Your task to perform on an android device: Empty the shopping cart on amazon. Search for "acer nitro" on amazon, select the first entry, and add it to the cart. Image 0: 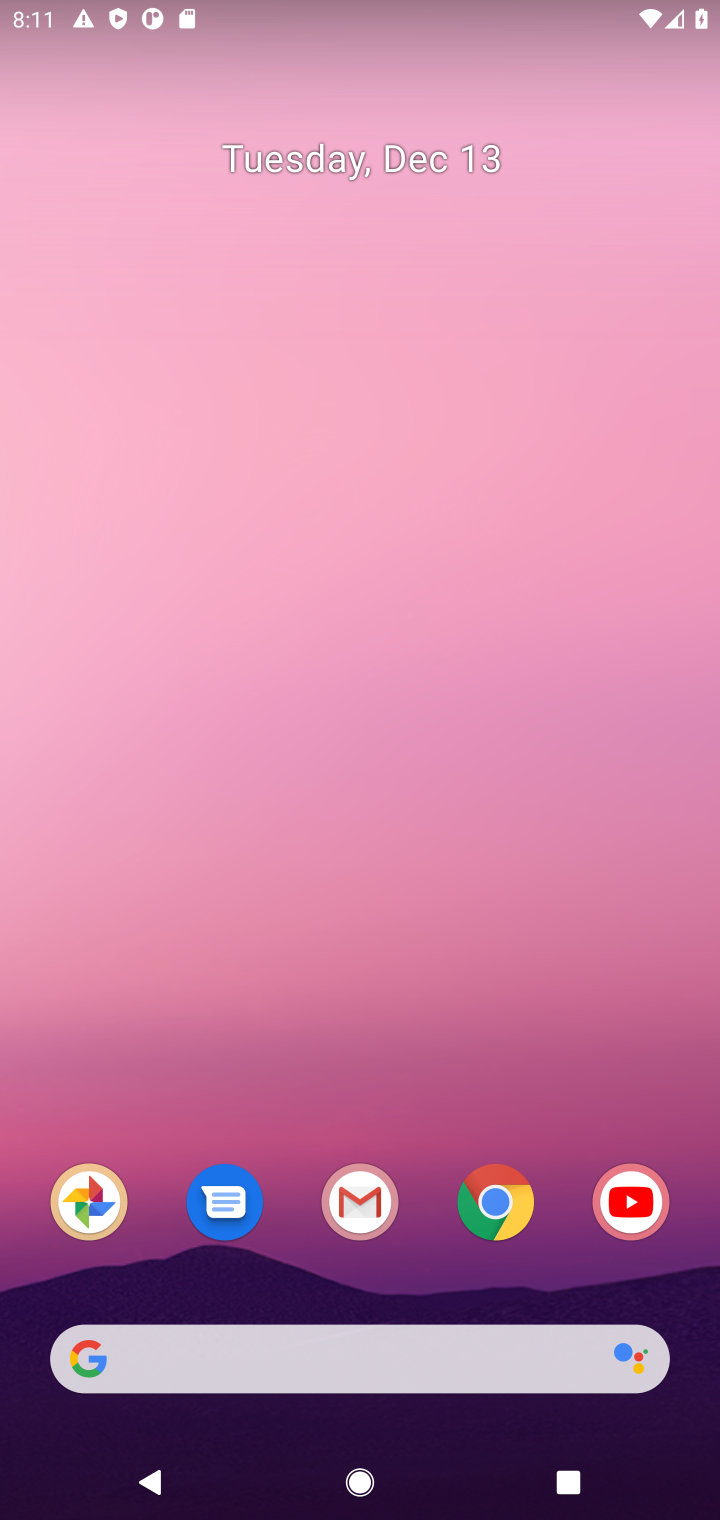
Step 0: click (517, 1214)
Your task to perform on an android device: Empty the shopping cart on amazon. Search for "acer nitro" on amazon, select the first entry, and add it to the cart. Image 1: 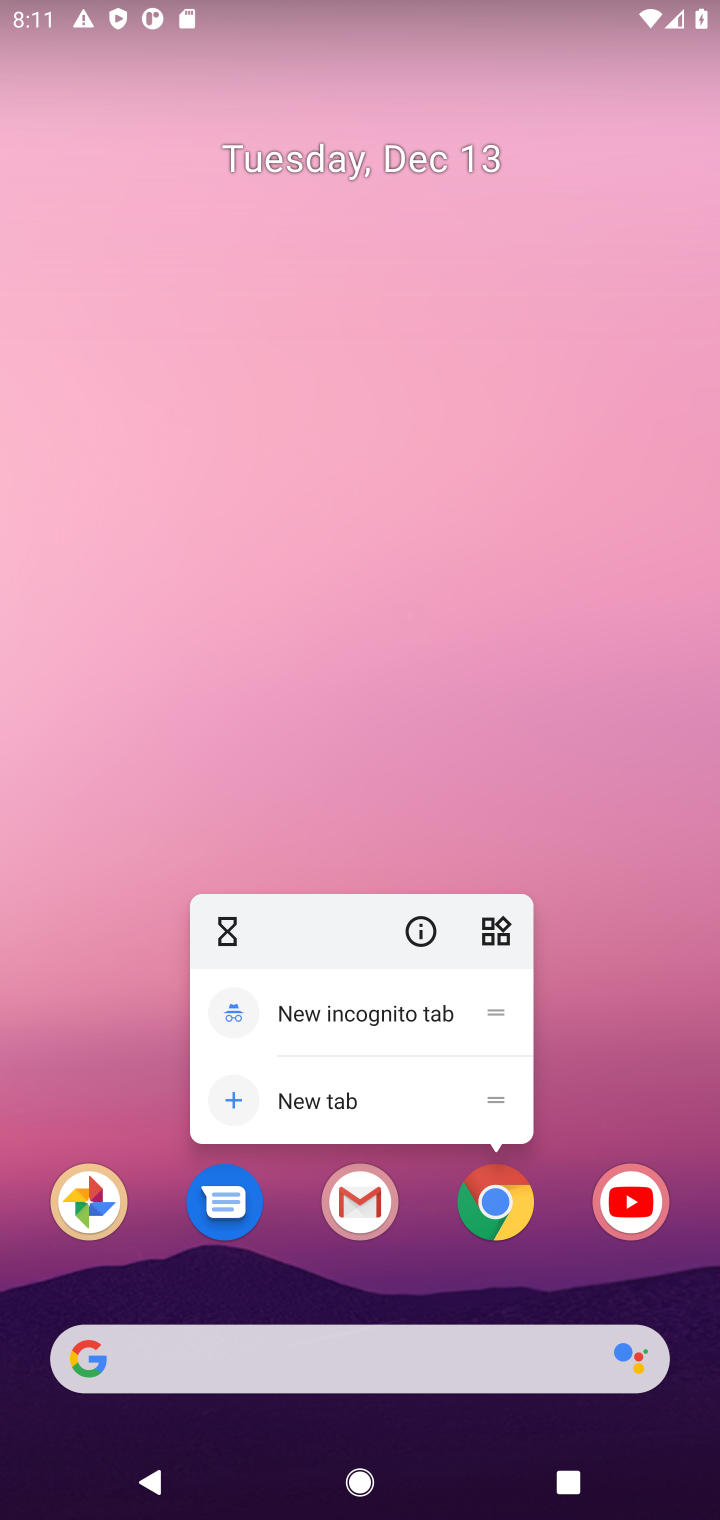
Step 1: click (517, 1214)
Your task to perform on an android device: Empty the shopping cart on amazon. Search for "acer nitro" on amazon, select the first entry, and add it to the cart. Image 2: 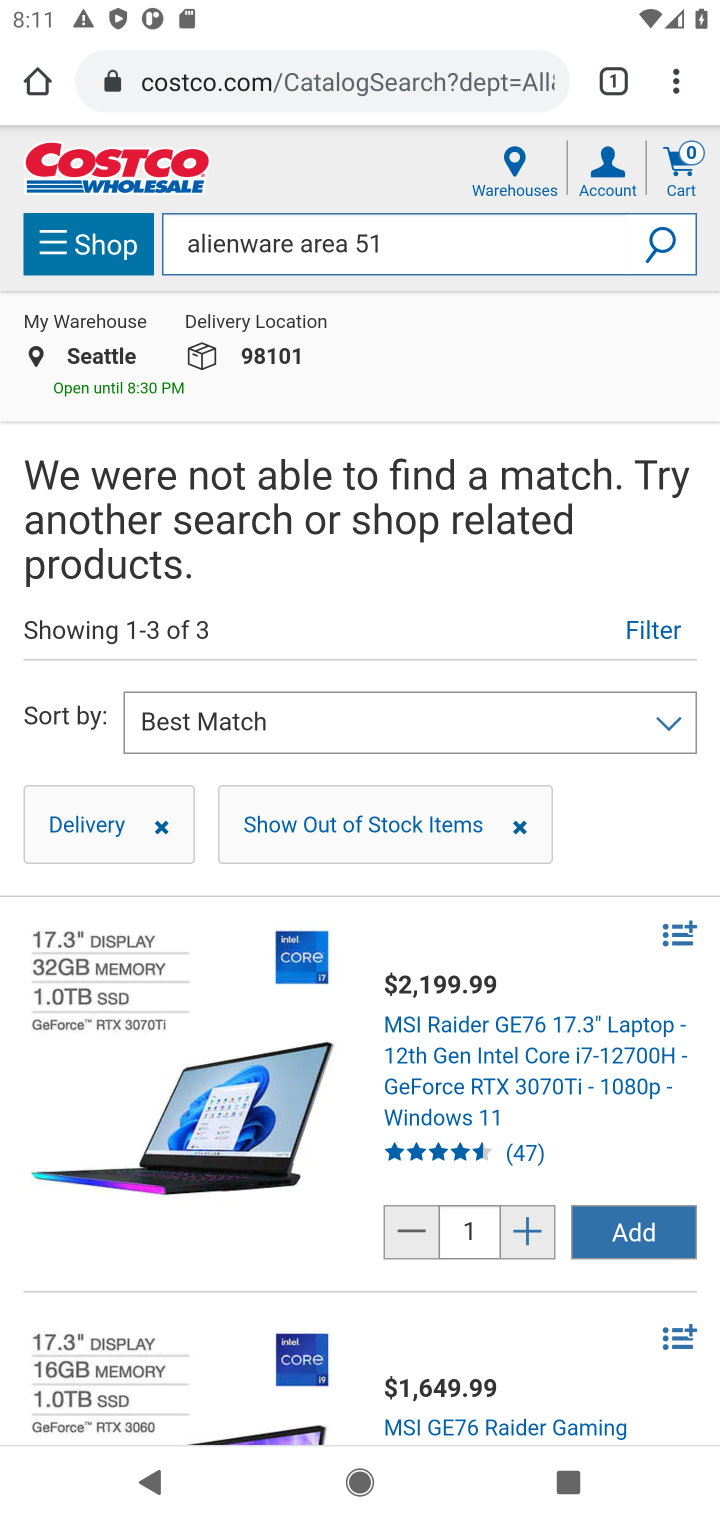
Step 2: click (326, 72)
Your task to perform on an android device: Empty the shopping cart on amazon. Search for "acer nitro" on amazon, select the first entry, and add it to the cart. Image 3: 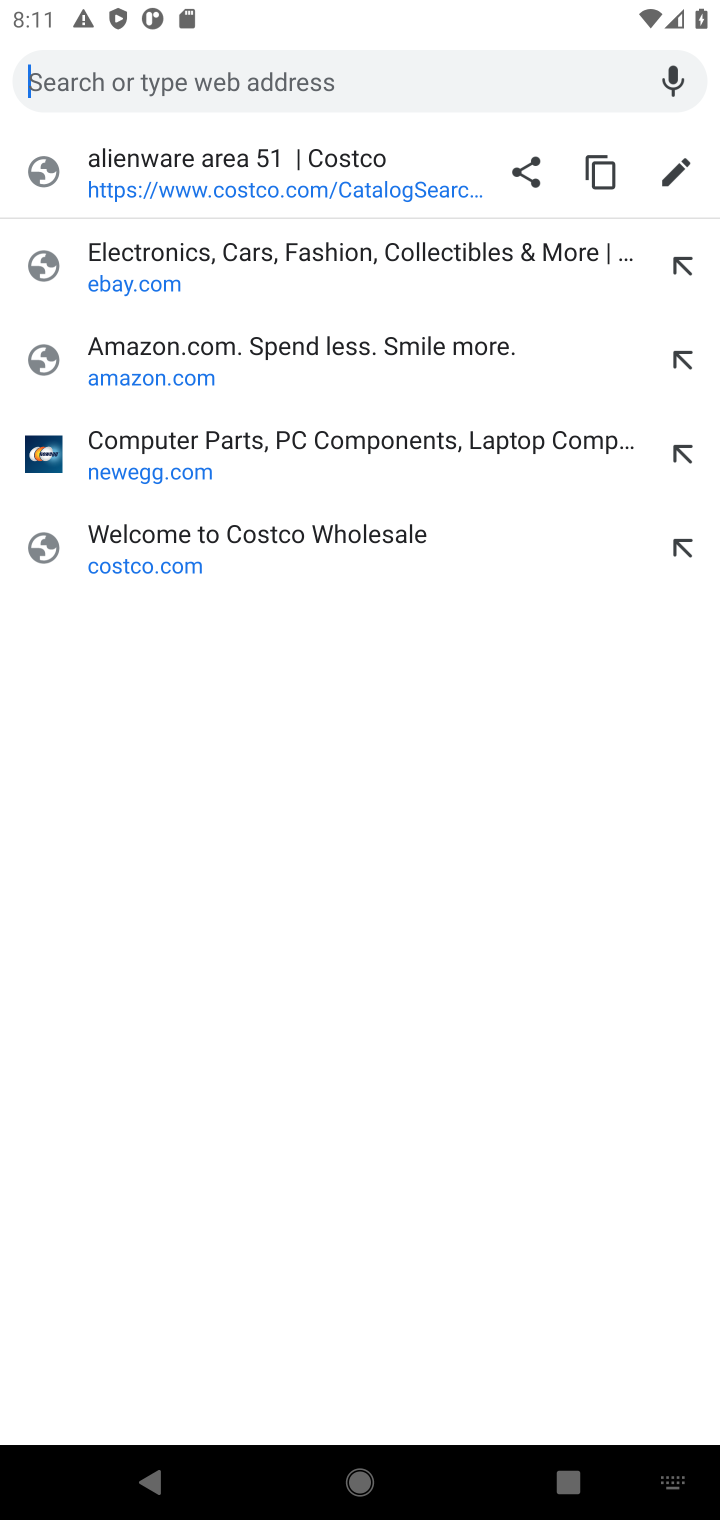
Step 3: click (131, 351)
Your task to perform on an android device: Empty the shopping cart on amazon. Search for "acer nitro" on amazon, select the first entry, and add it to the cart. Image 4: 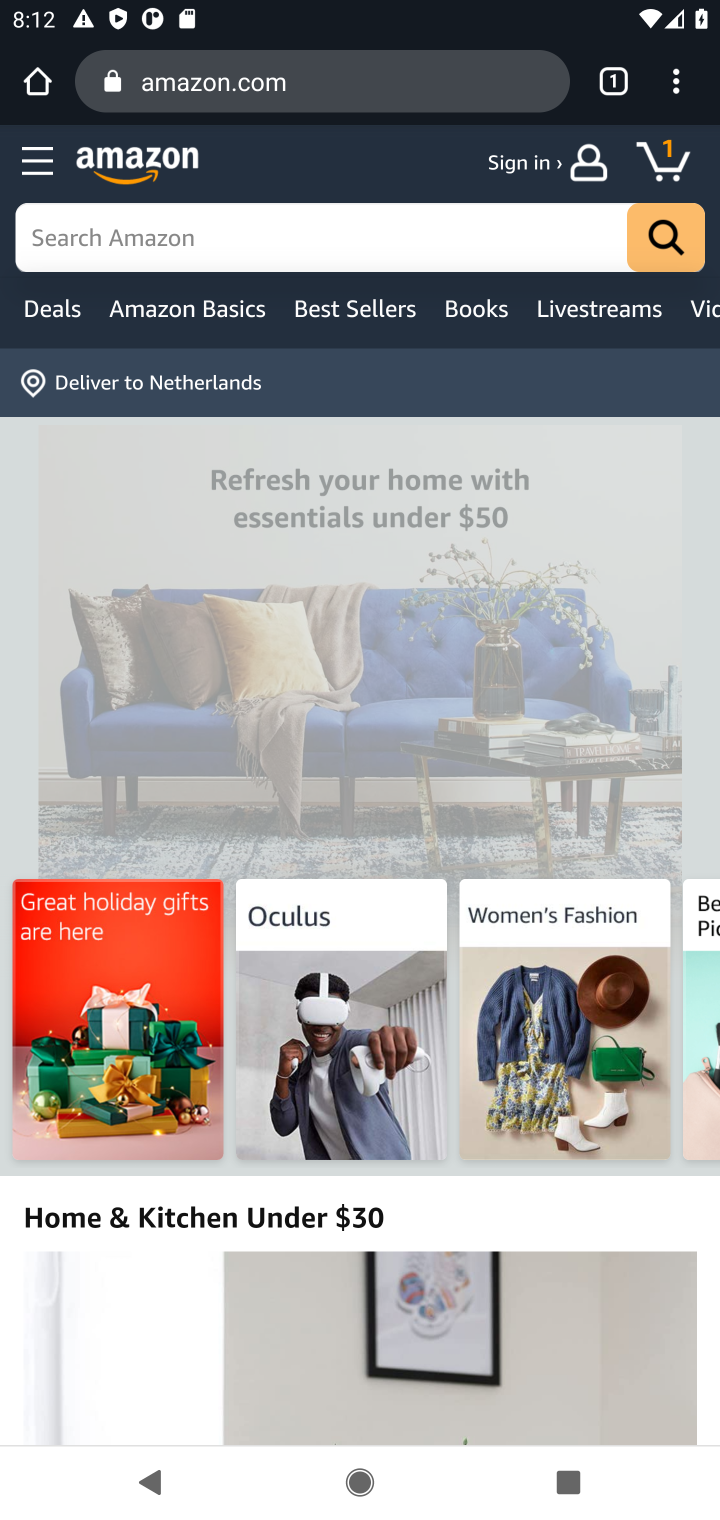
Step 4: click (669, 165)
Your task to perform on an android device: Empty the shopping cart on amazon. Search for "acer nitro" on amazon, select the first entry, and add it to the cart. Image 5: 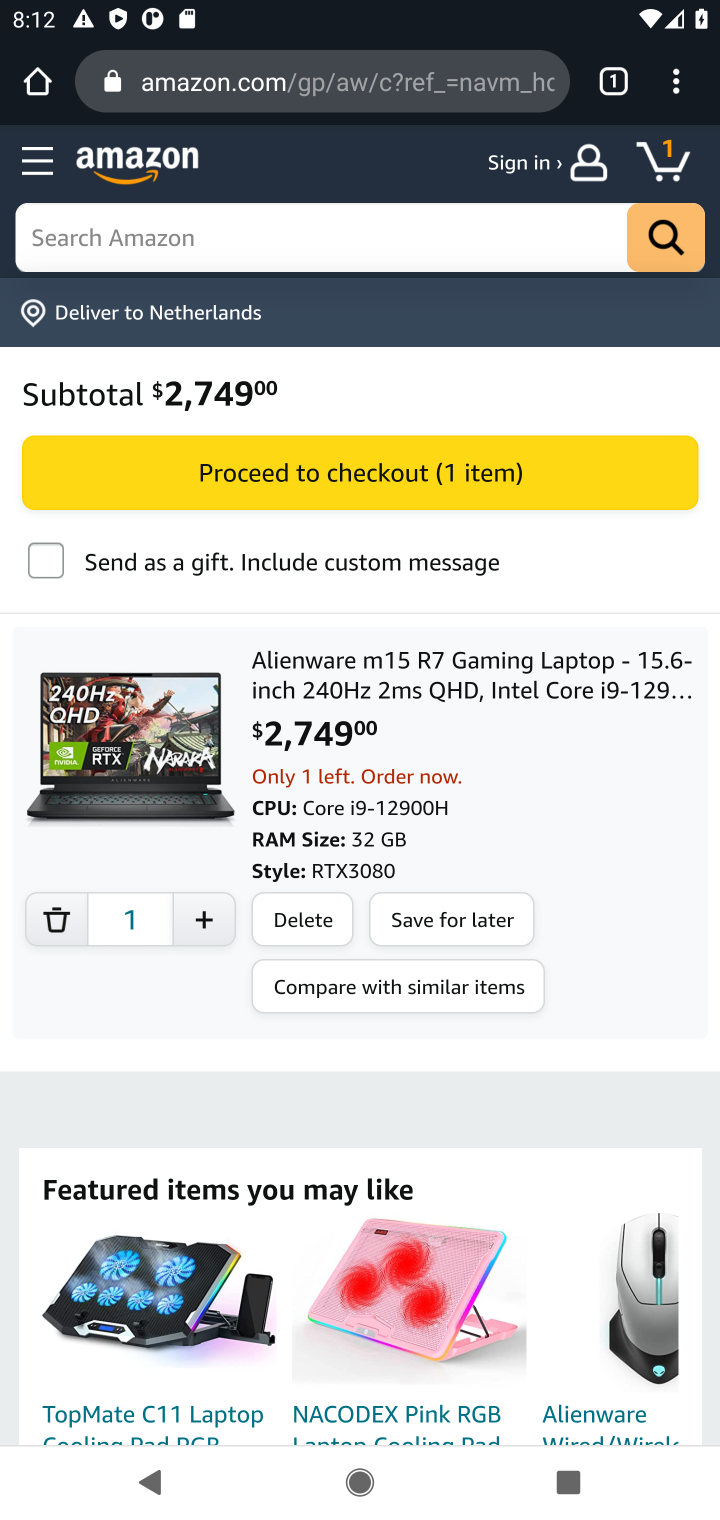
Step 5: click (310, 923)
Your task to perform on an android device: Empty the shopping cart on amazon. Search for "acer nitro" on amazon, select the first entry, and add it to the cart. Image 6: 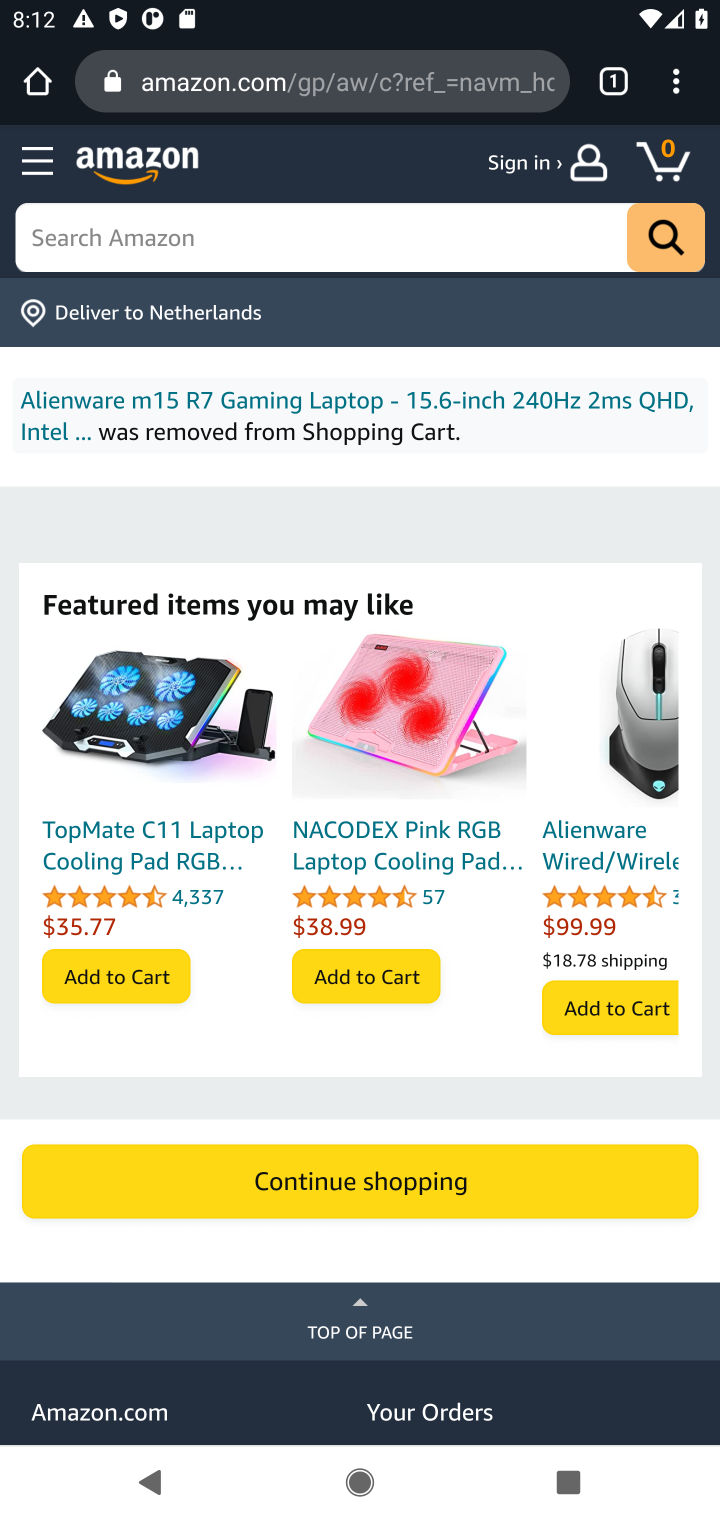
Step 6: click (457, 254)
Your task to perform on an android device: Empty the shopping cart on amazon. Search for "acer nitro" on amazon, select the first entry, and add it to the cart. Image 7: 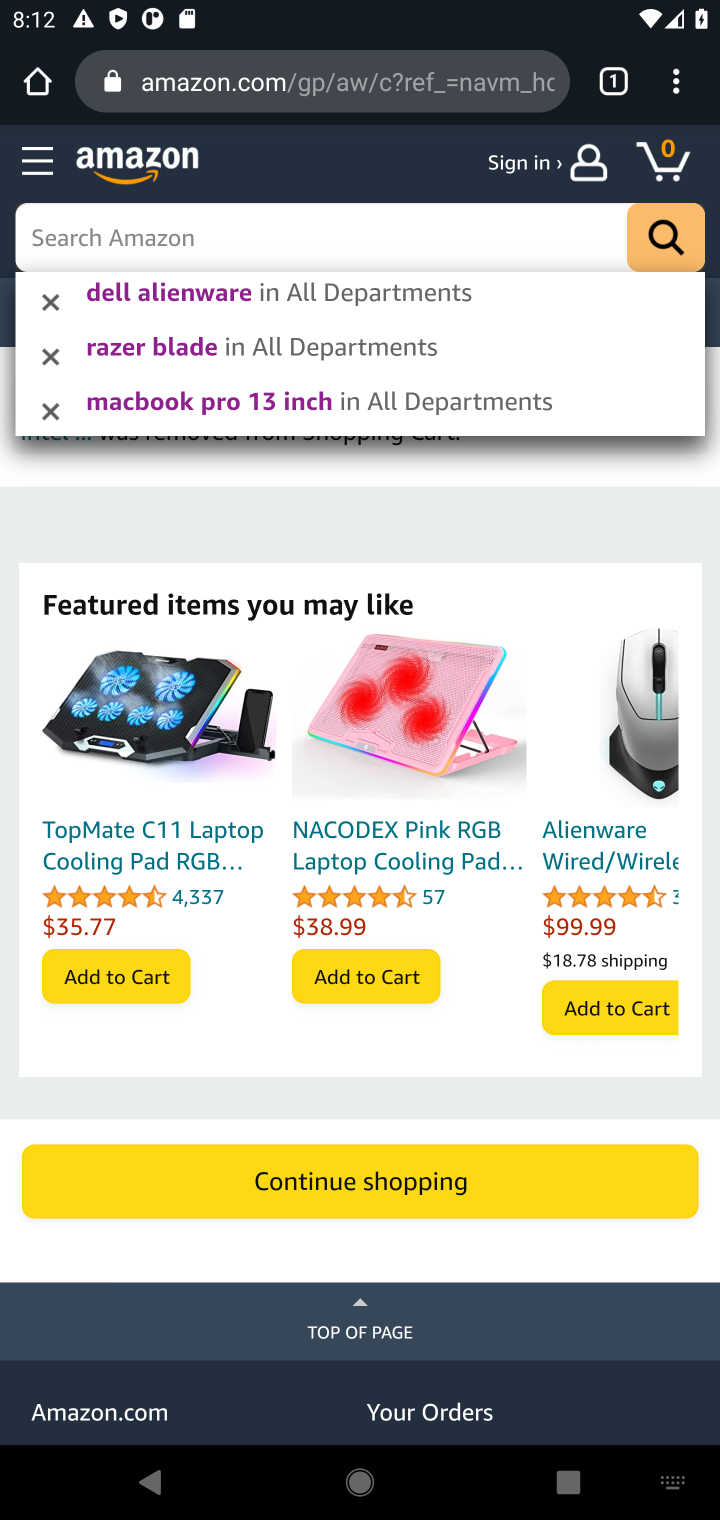
Step 7: type "acer nitro"
Your task to perform on an android device: Empty the shopping cart on amazon. Search for "acer nitro" on amazon, select the first entry, and add it to the cart. Image 8: 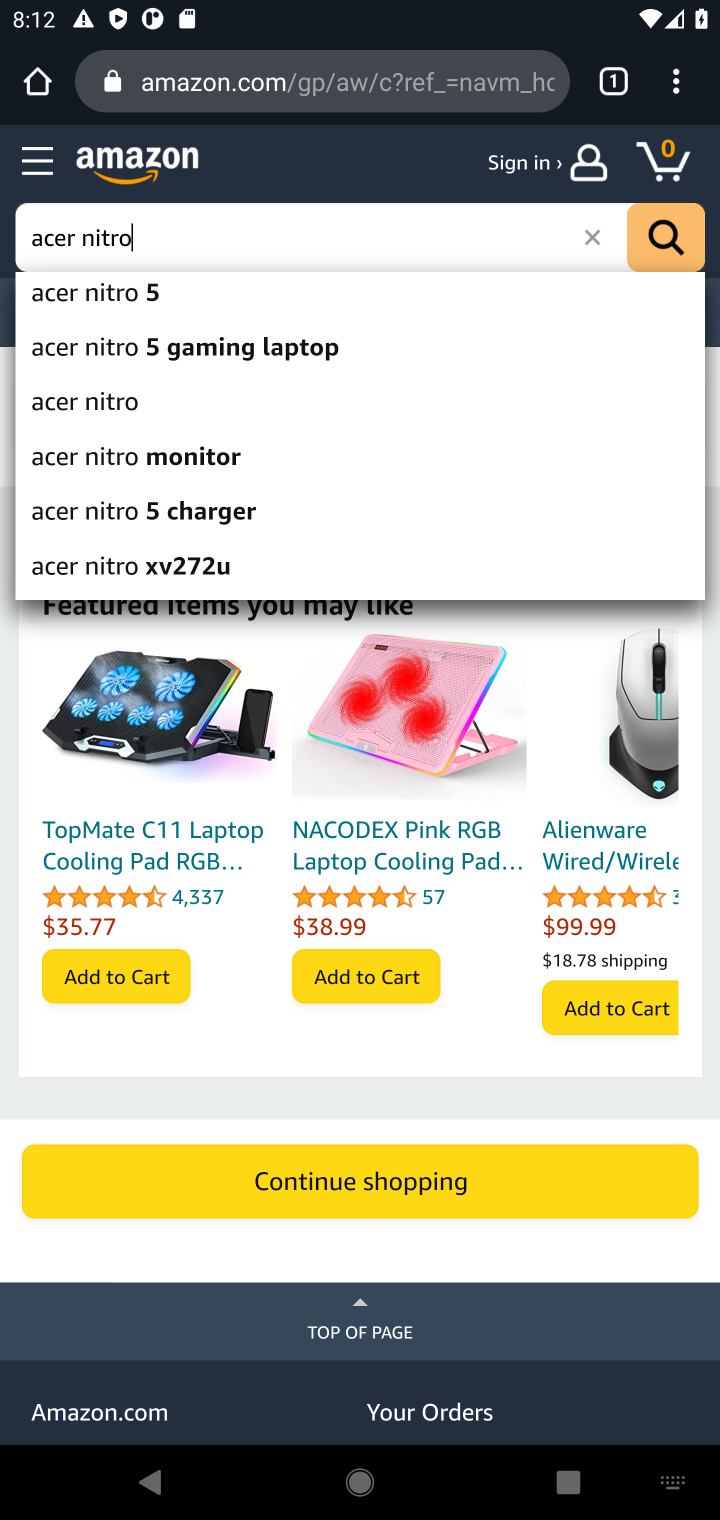
Step 8: click (665, 239)
Your task to perform on an android device: Empty the shopping cart on amazon. Search for "acer nitro" on amazon, select the first entry, and add it to the cart. Image 9: 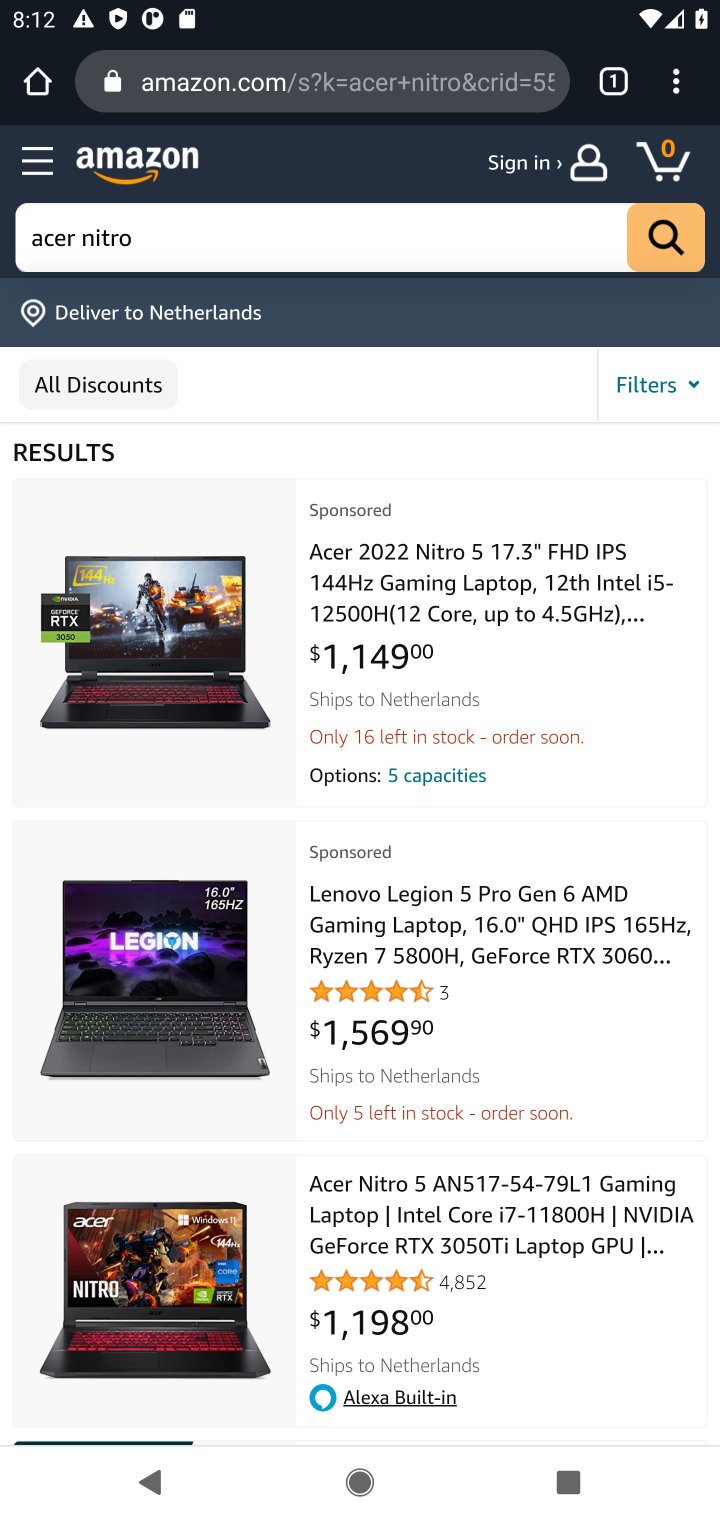
Step 9: click (435, 583)
Your task to perform on an android device: Empty the shopping cart on amazon. Search for "acer nitro" on amazon, select the first entry, and add it to the cart. Image 10: 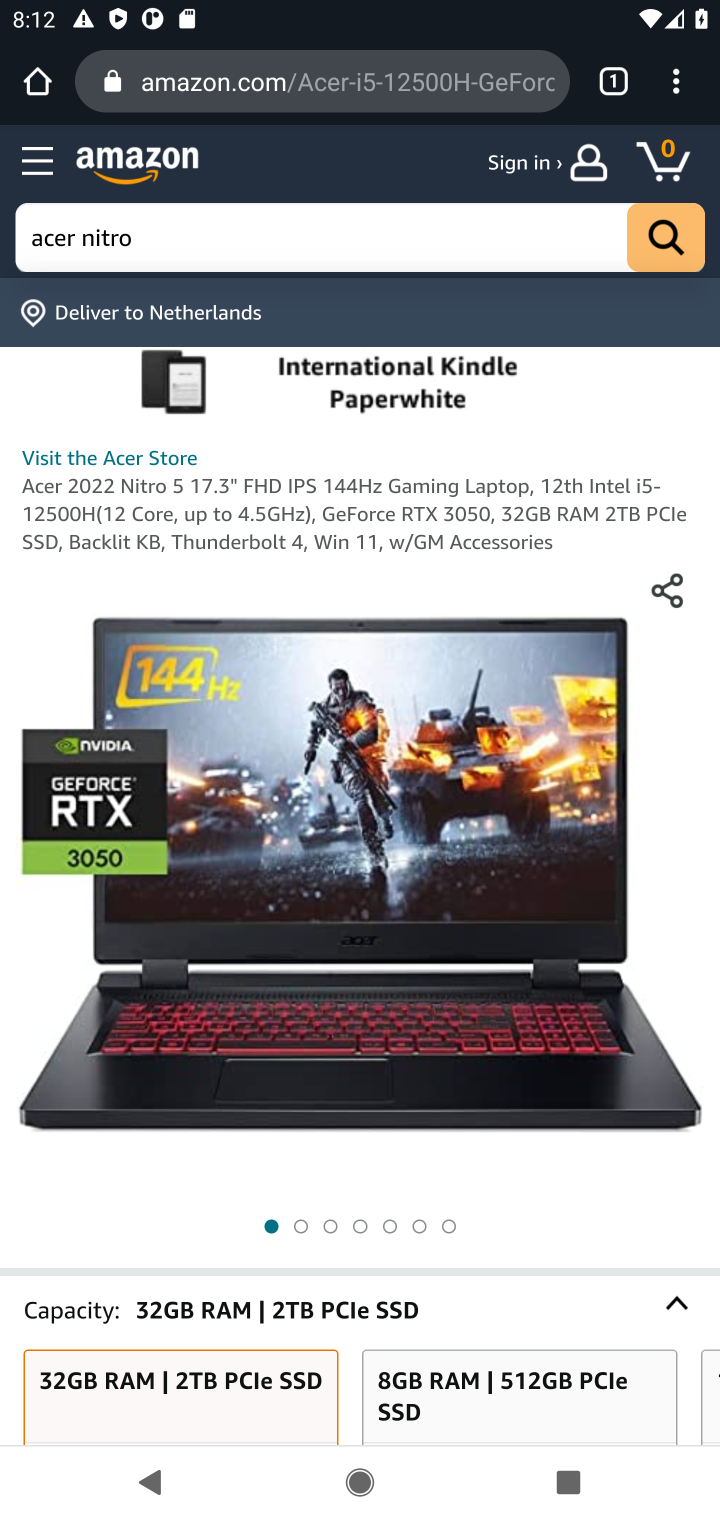
Step 10: drag from (614, 1187) to (651, 559)
Your task to perform on an android device: Empty the shopping cart on amazon. Search for "acer nitro" on amazon, select the first entry, and add it to the cart. Image 11: 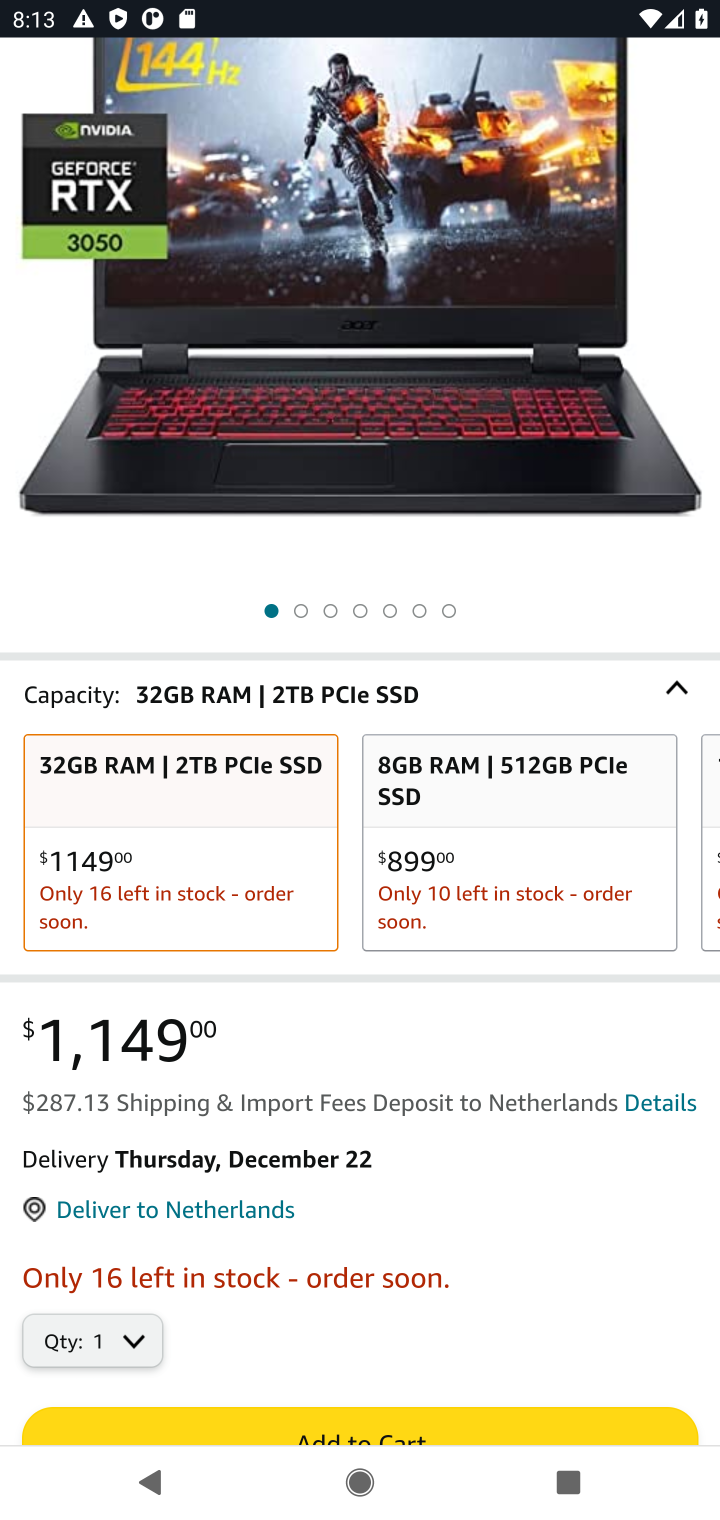
Step 11: drag from (570, 972) to (631, 699)
Your task to perform on an android device: Empty the shopping cart on amazon. Search for "acer nitro" on amazon, select the first entry, and add it to the cart. Image 12: 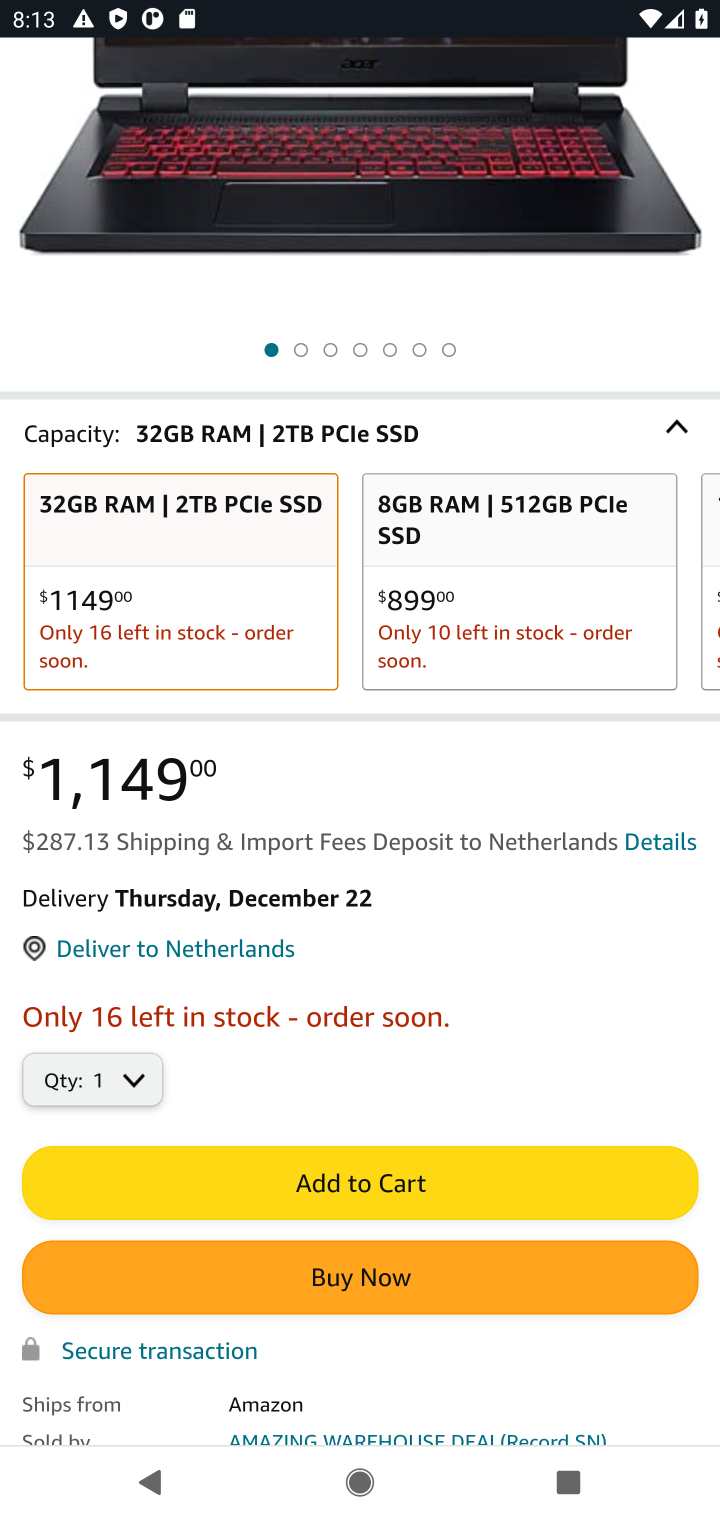
Step 12: click (519, 1194)
Your task to perform on an android device: Empty the shopping cart on amazon. Search for "acer nitro" on amazon, select the first entry, and add it to the cart. Image 13: 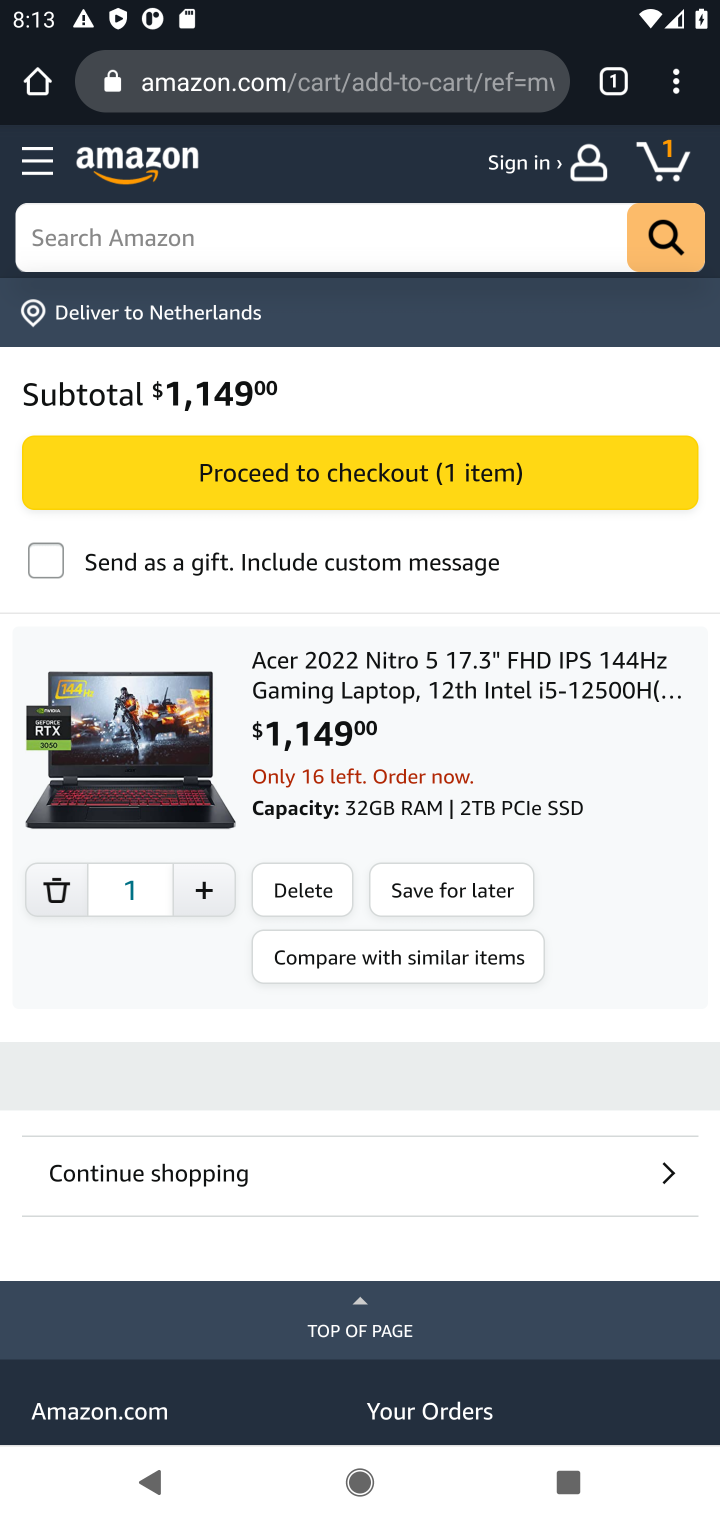
Step 13: task complete